Your task to perform on an android device: Open Yahoo.com Image 0: 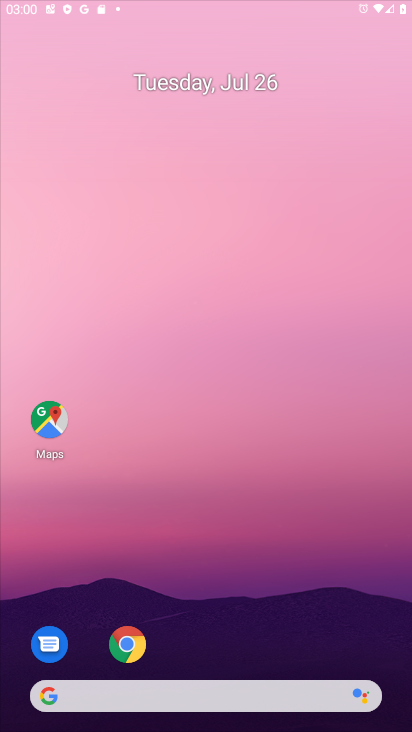
Step 0: press home button
Your task to perform on an android device: Open Yahoo.com Image 1: 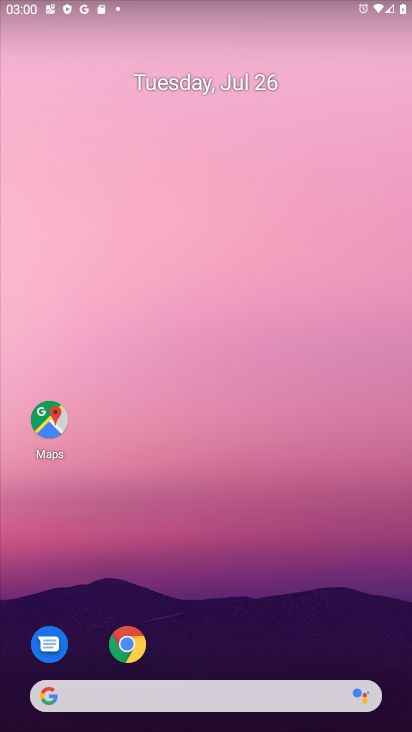
Step 1: click (138, 642)
Your task to perform on an android device: Open Yahoo.com Image 2: 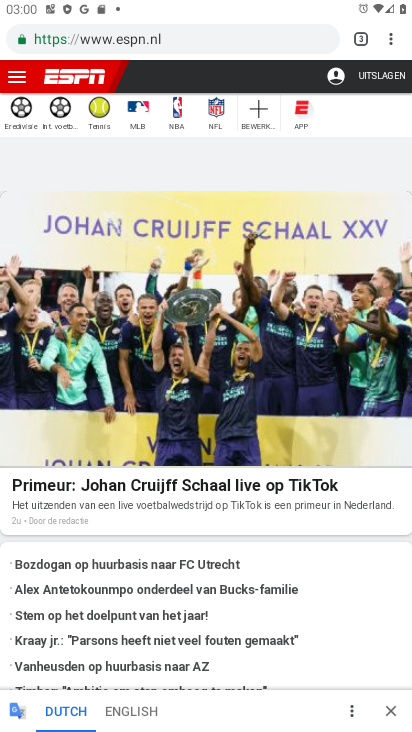
Step 2: click (365, 38)
Your task to perform on an android device: Open Yahoo.com Image 3: 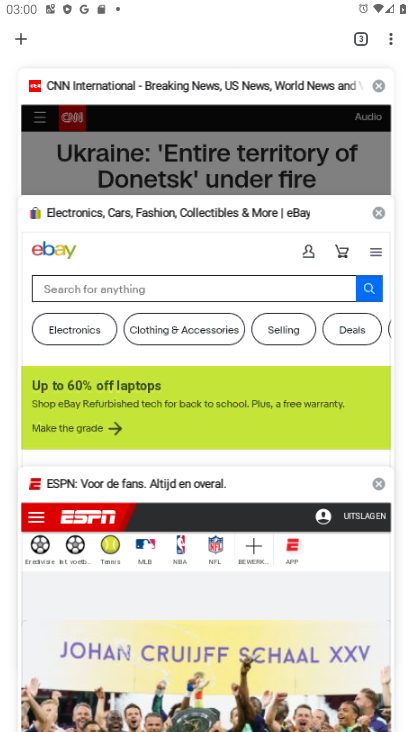
Step 3: click (15, 29)
Your task to perform on an android device: Open Yahoo.com Image 4: 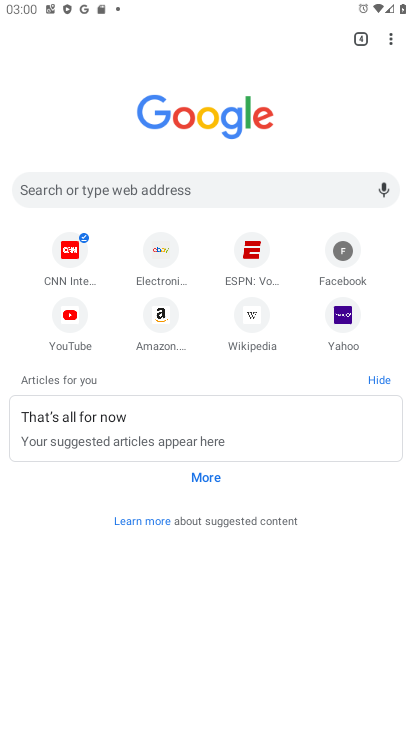
Step 4: click (333, 321)
Your task to perform on an android device: Open Yahoo.com Image 5: 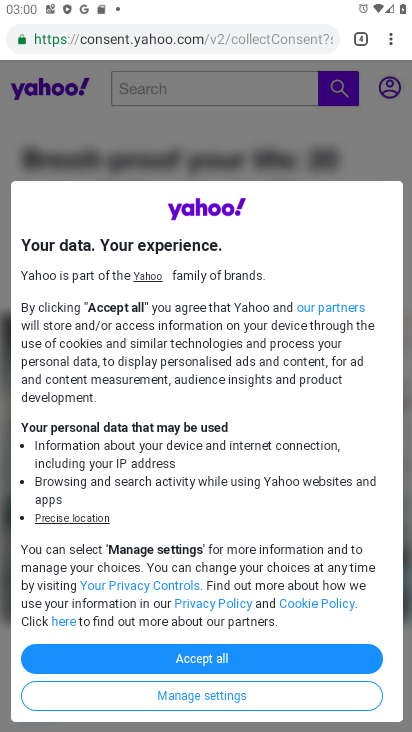
Step 5: task complete